Your task to perform on an android device: turn notification dots off Image 0: 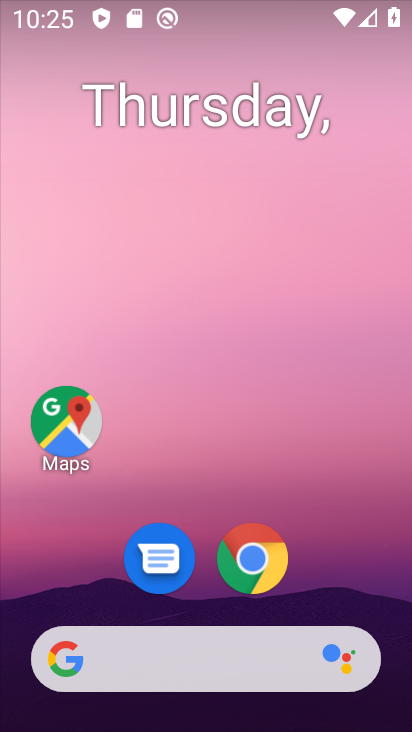
Step 0: drag from (339, 585) to (322, 121)
Your task to perform on an android device: turn notification dots off Image 1: 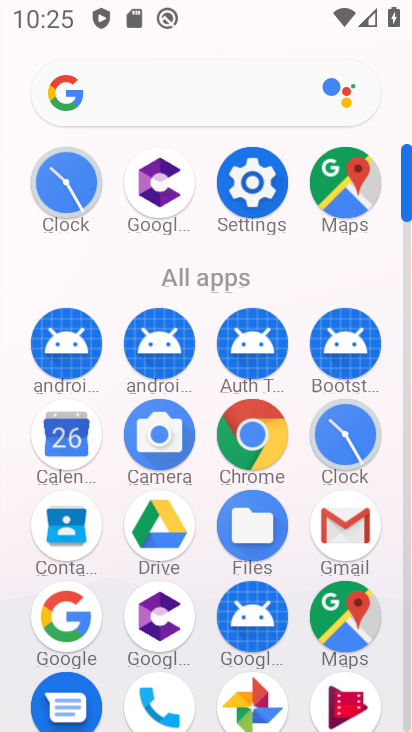
Step 1: click (253, 169)
Your task to perform on an android device: turn notification dots off Image 2: 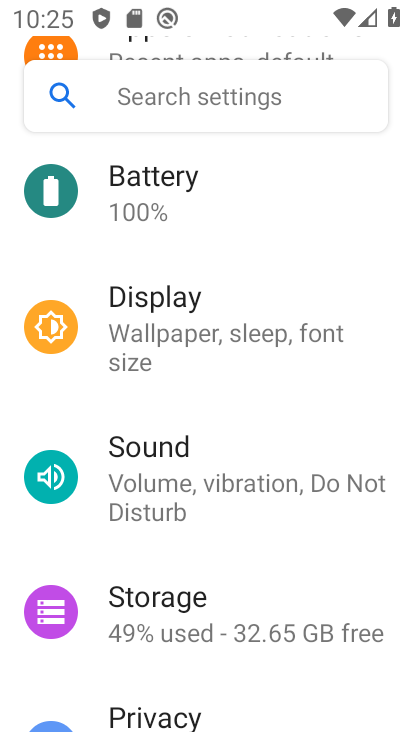
Step 2: drag from (225, 206) to (236, 514)
Your task to perform on an android device: turn notification dots off Image 3: 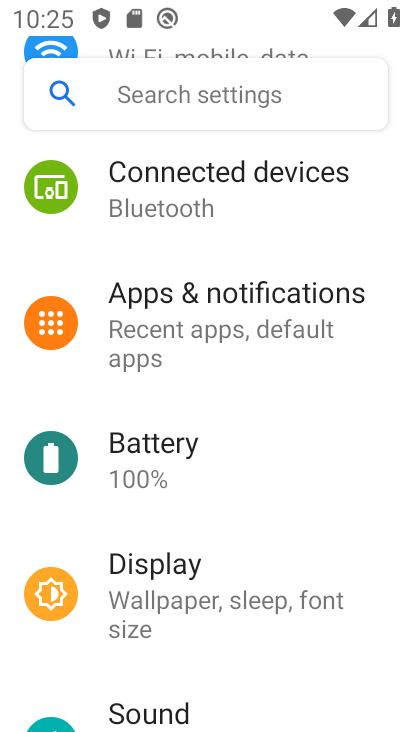
Step 3: click (173, 330)
Your task to perform on an android device: turn notification dots off Image 4: 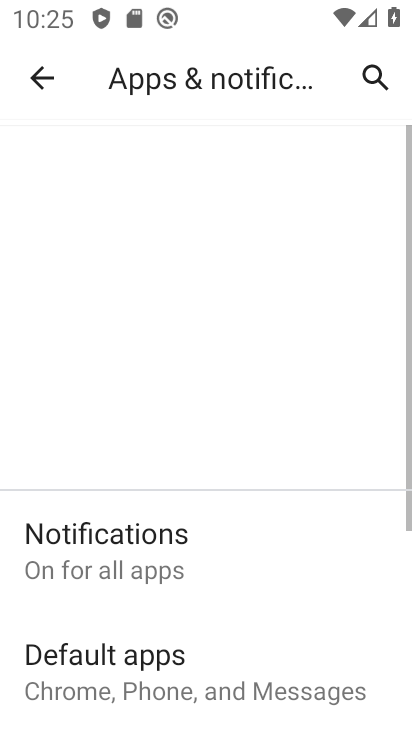
Step 4: click (149, 548)
Your task to perform on an android device: turn notification dots off Image 5: 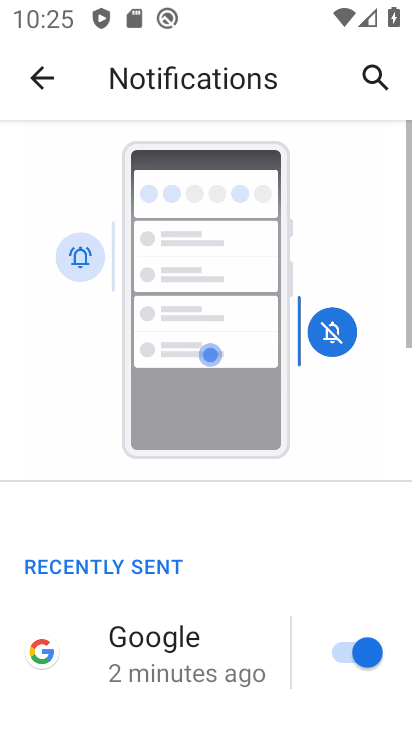
Step 5: drag from (171, 580) to (194, 38)
Your task to perform on an android device: turn notification dots off Image 6: 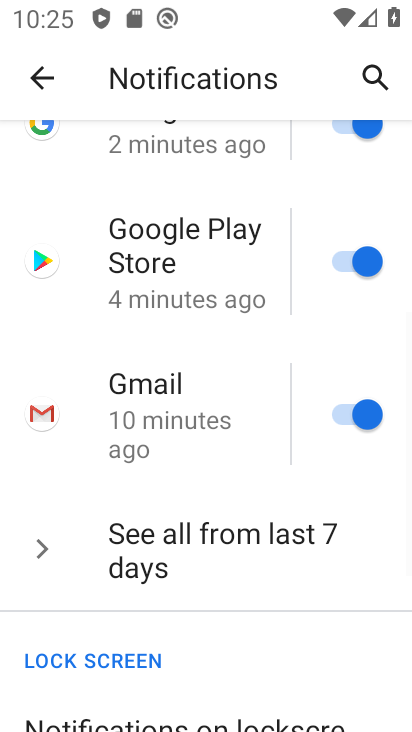
Step 6: drag from (225, 676) to (254, 226)
Your task to perform on an android device: turn notification dots off Image 7: 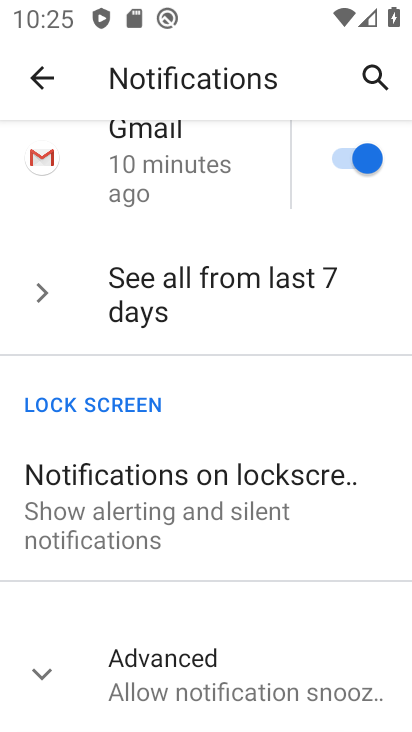
Step 7: click (154, 662)
Your task to perform on an android device: turn notification dots off Image 8: 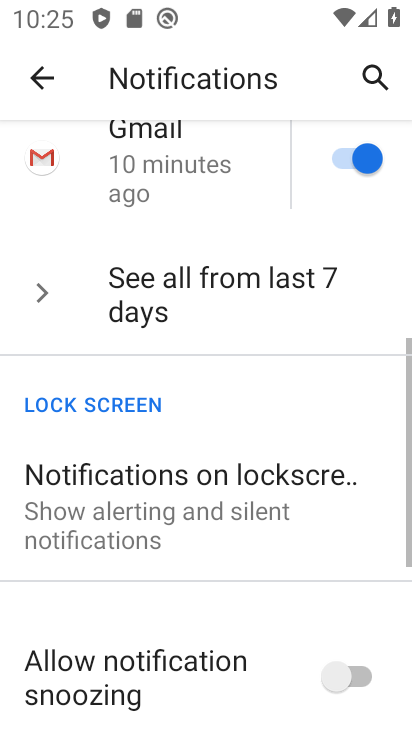
Step 8: drag from (287, 616) to (274, 233)
Your task to perform on an android device: turn notification dots off Image 9: 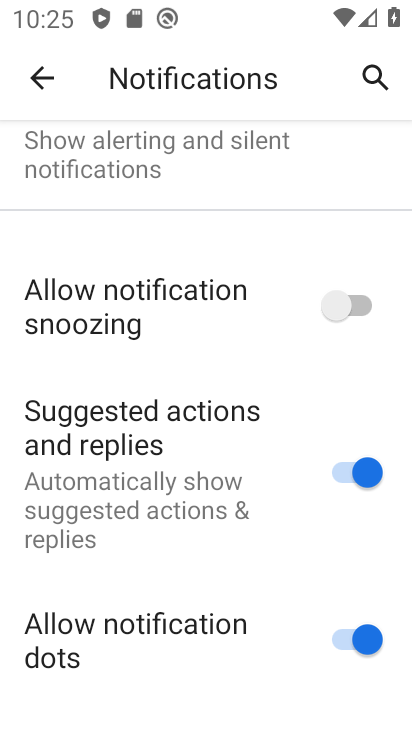
Step 9: click (367, 645)
Your task to perform on an android device: turn notification dots off Image 10: 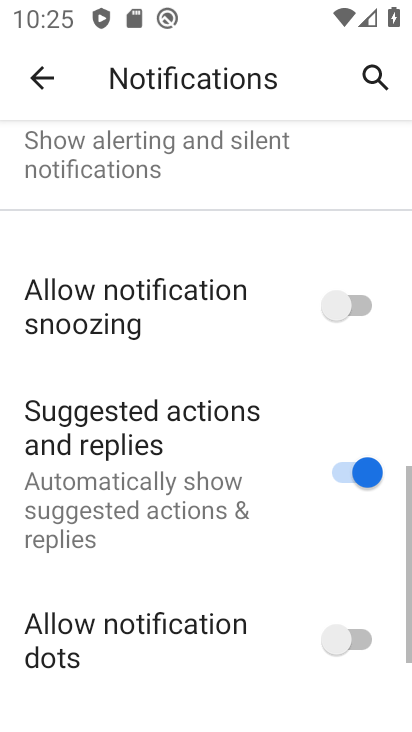
Step 10: task complete